Your task to perform on an android device: Open the web browser Image 0: 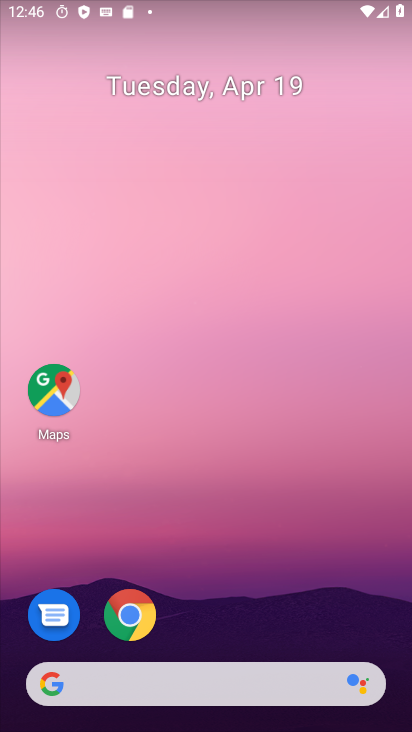
Step 0: drag from (391, 599) to (399, 49)
Your task to perform on an android device: Open the web browser Image 1: 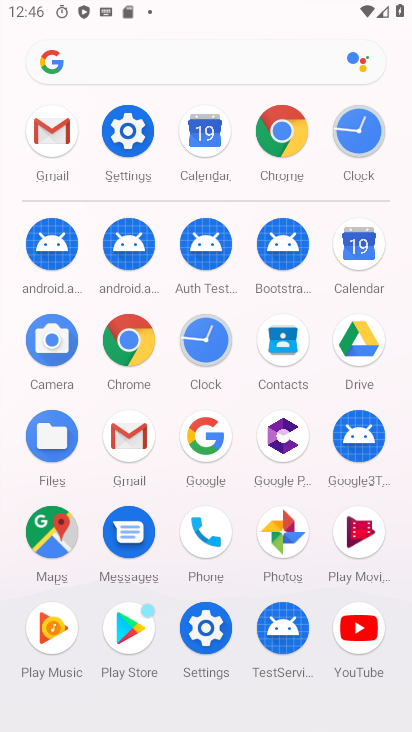
Step 1: click (118, 341)
Your task to perform on an android device: Open the web browser Image 2: 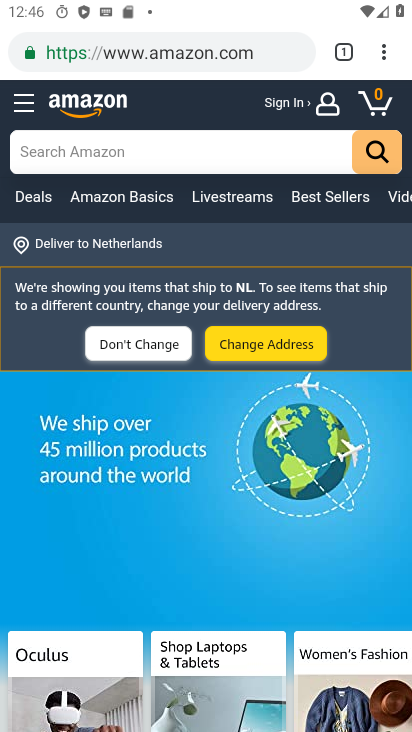
Step 2: task complete